Your task to perform on an android device: toggle translation in the chrome app Image 0: 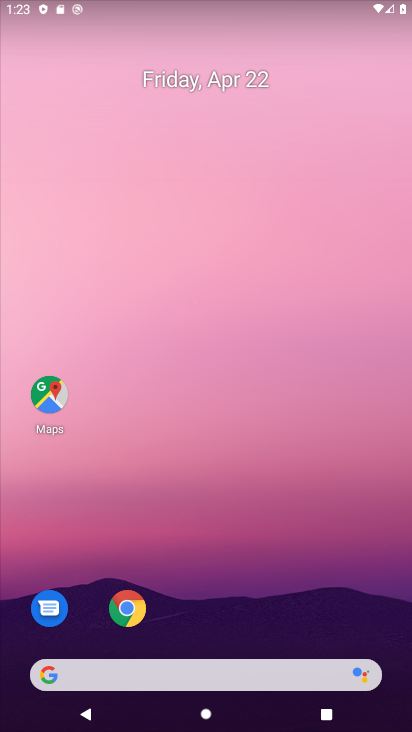
Step 0: drag from (321, 697) to (272, 131)
Your task to perform on an android device: toggle translation in the chrome app Image 1: 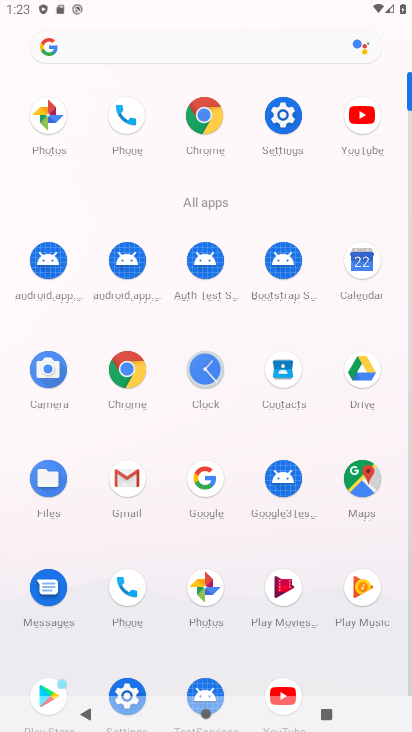
Step 1: click (127, 364)
Your task to perform on an android device: toggle translation in the chrome app Image 2: 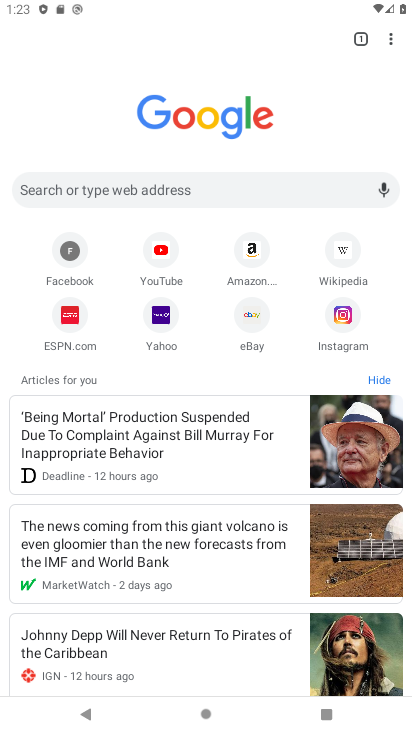
Step 2: click (390, 44)
Your task to perform on an android device: toggle translation in the chrome app Image 3: 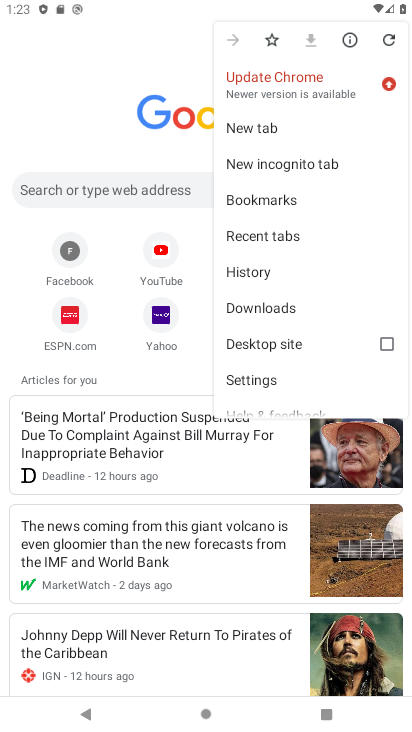
Step 3: click (238, 382)
Your task to perform on an android device: toggle translation in the chrome app Image 4: 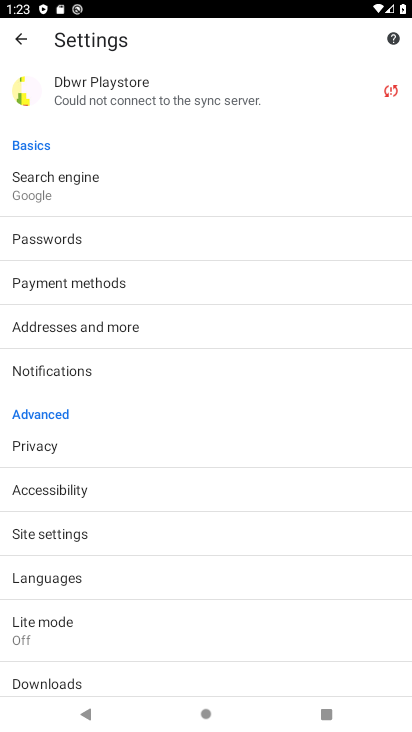
Step 4: click (75, 581)
Your task to perform on an android device: toggle translation in the chrome app Image 5: 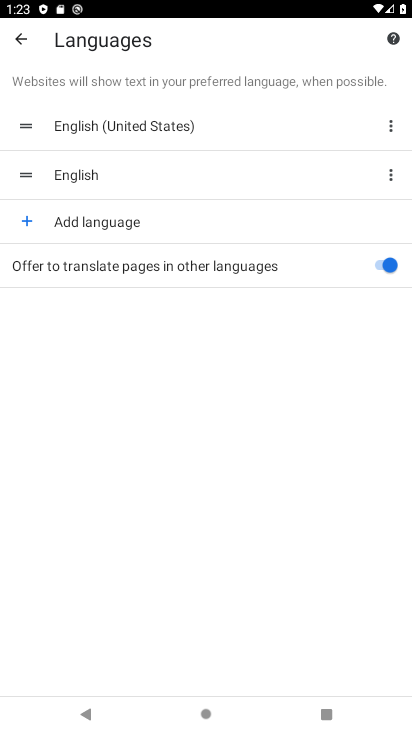
Step 5: click (167, 256)
Your task to perform on an android device: toggle translation in the chrome app Image 6: 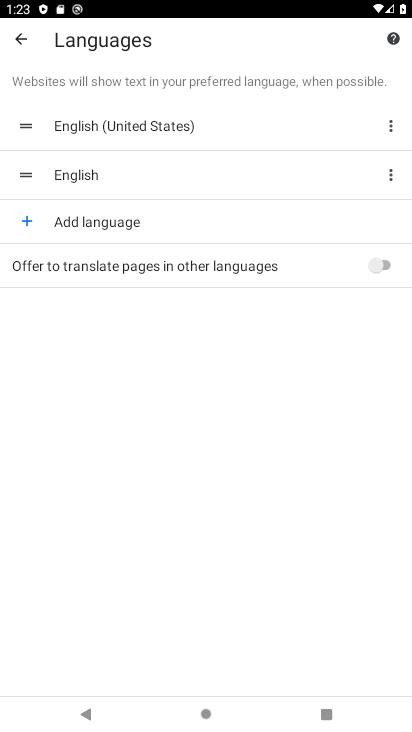
Step 6: click (168, 256)
Your task to perform on an android device: toggle translation in the chrome app Image 7: 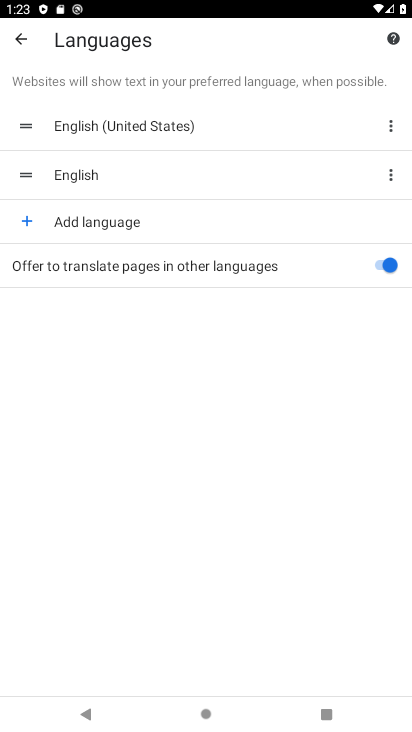
Step 7: task complete